Your task to perform on an android device: choose inbox layout in the gmail app Image 0: 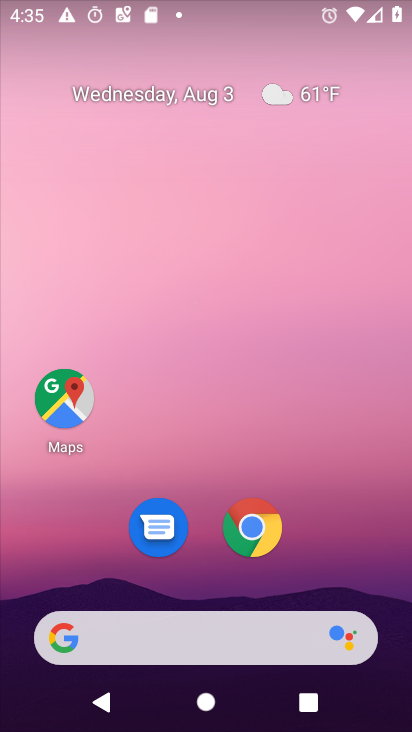
Step 0: drag from (342, 556) to (364, 24)
Your task to perform on an android device: choose inbox layout in the gmail app Image 1: 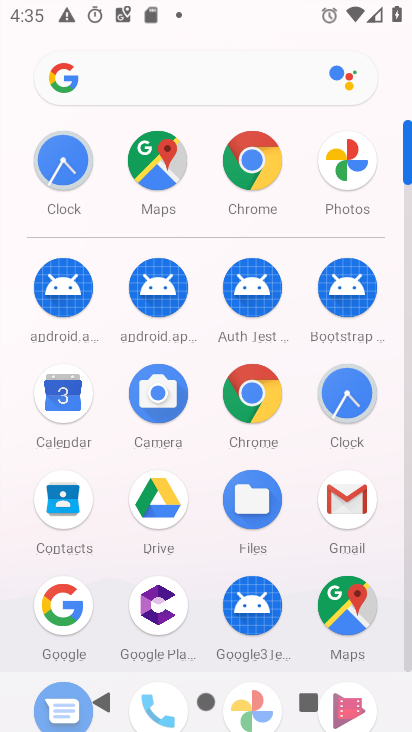
Step 1: click (345, 514)
Your task to perform on an android device: choose inbox layout in the gmail app Image 2: 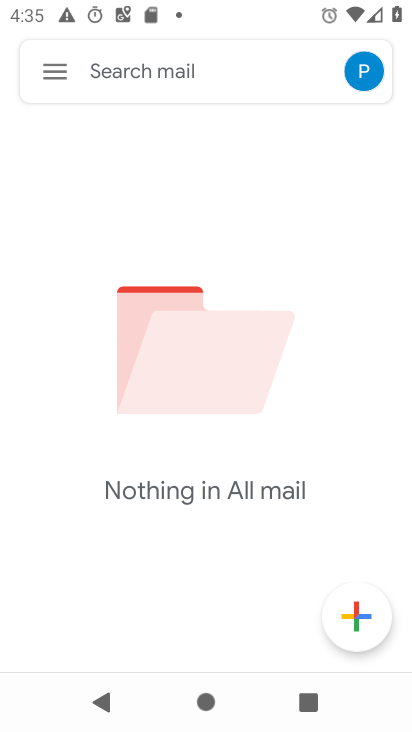
Step 2: click (59, 73)
Your task to perform on an android device: choose inbox layout in the gmail app Image 3: 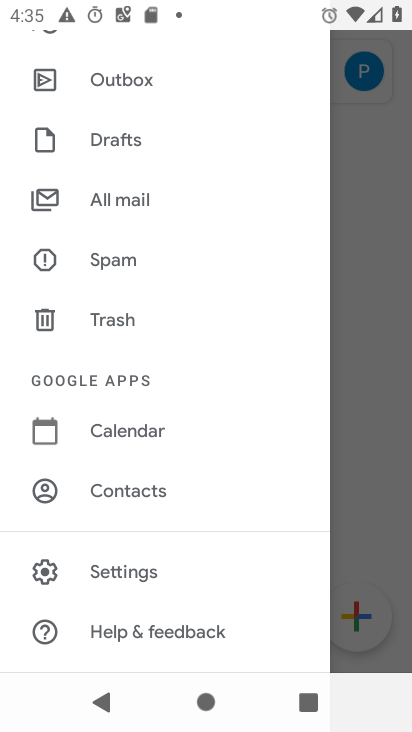
Step 3: click (143, 577)
Your task to perform on an android device: choose inbox layout in the gmail app Image 4: 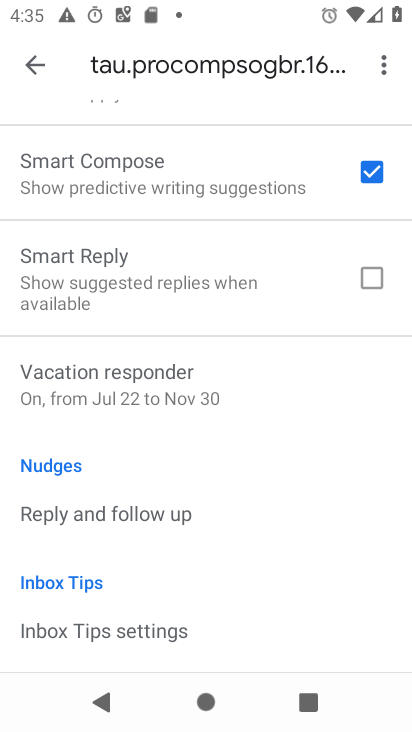
Step 4: drag from (201, 160) to (237, 612)
Your task to perform on an android device: choose inbox layout in the gmail app Image 5: 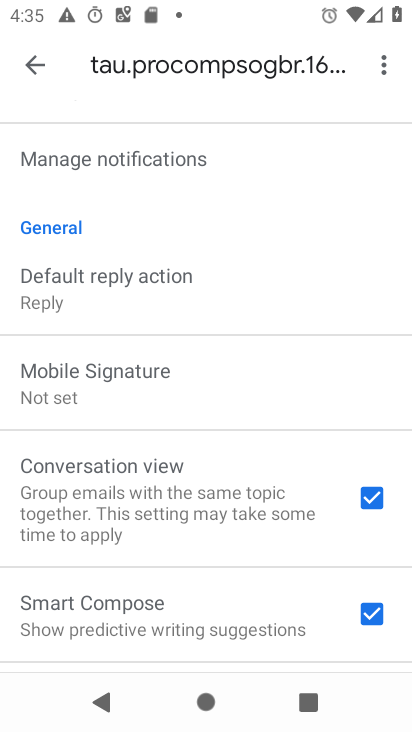
Step 5: drag from (285, 196) to (265, 614)
Your task to perform on an android device: choose inbox layout in the gmail app Image 6: 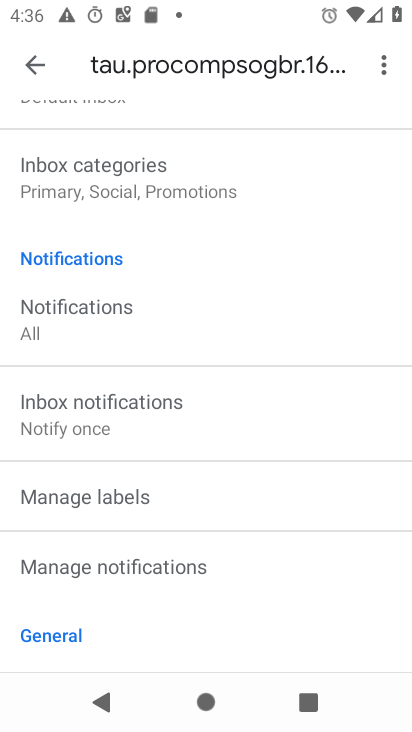
Step 6: drag from (281, 206) to (304, 580)
Your task to perform on an android device: choose inbox layout in the gmail app Image 7: 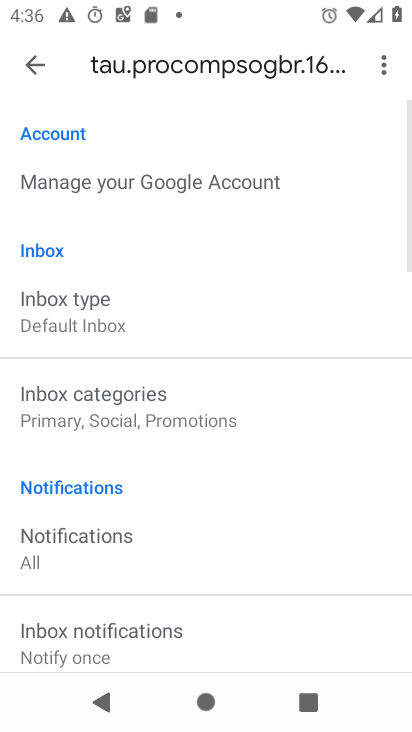
Step 7: click (136, 316)
Your task to perform on an android device: choose inbox layout in the gmail app Image 8: 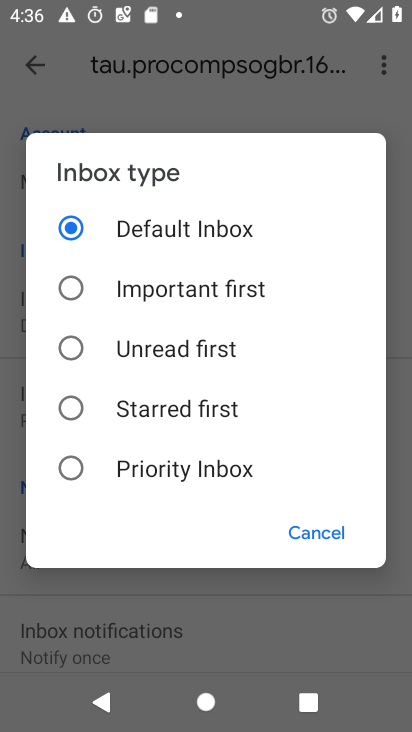
Step 8: task complete